Your task to perform on an android device: turn on wifi Image 0: 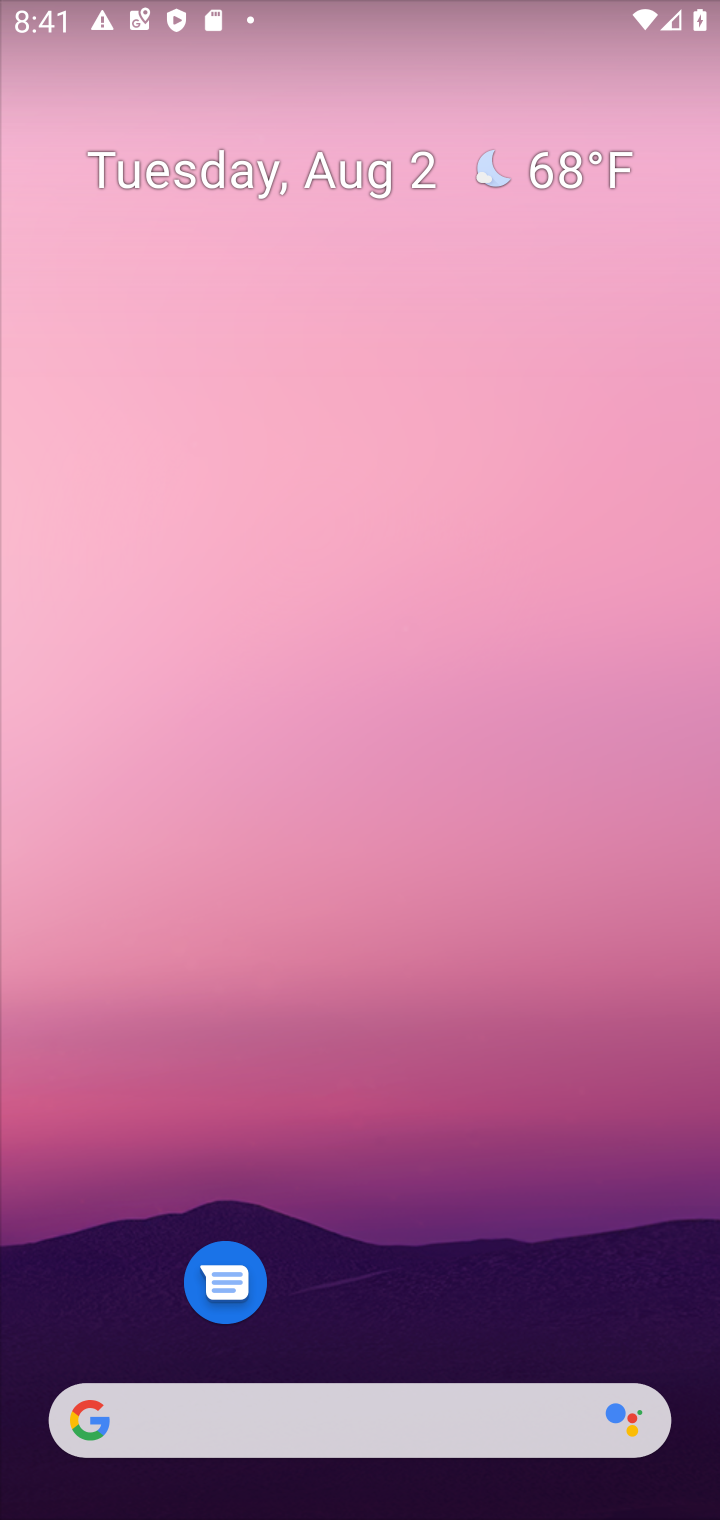
Step 0: drag from (418, 1354) to (146, 87)
Your task to perform on an android device: turn on wifi Image 1: 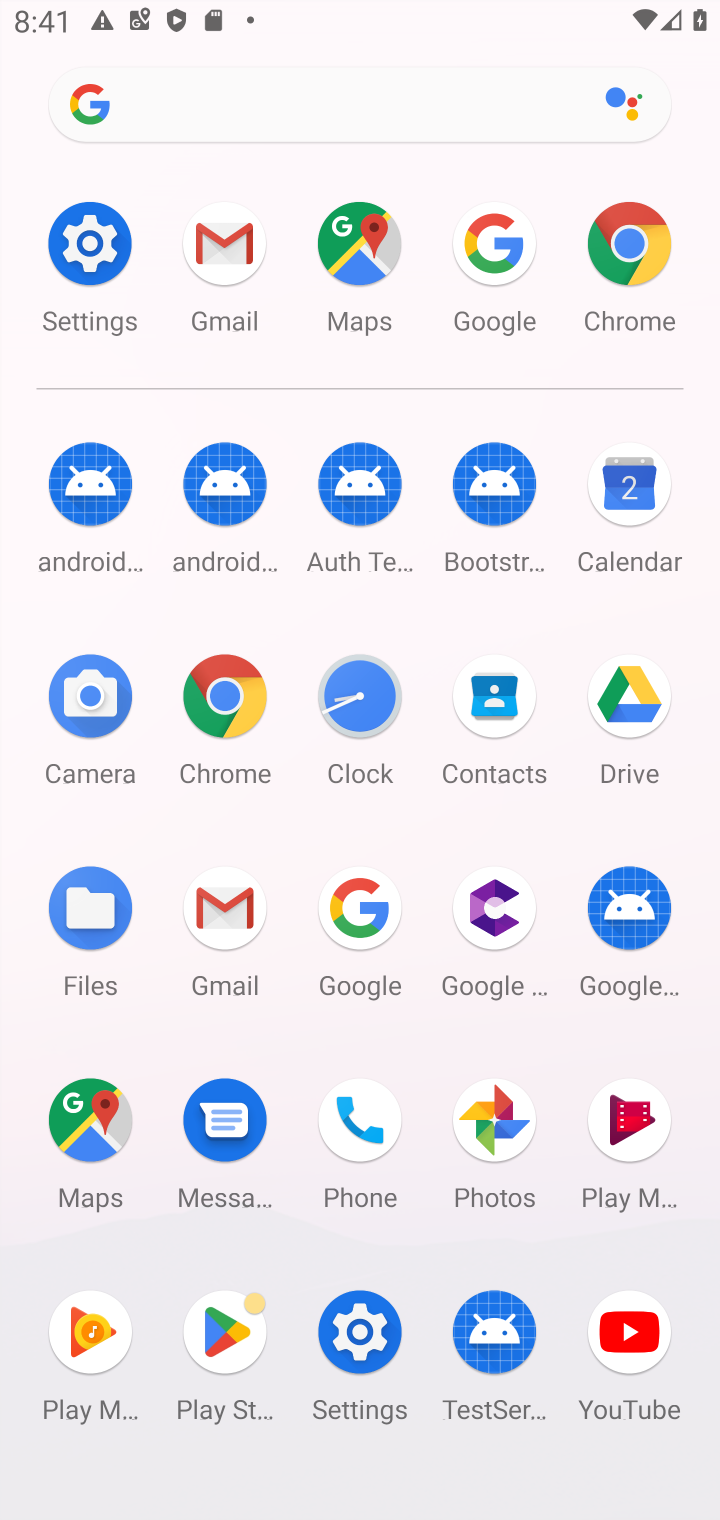
Step 1: click (59, 274)
Your task to perform on an android device: turn on wifi Image 2: 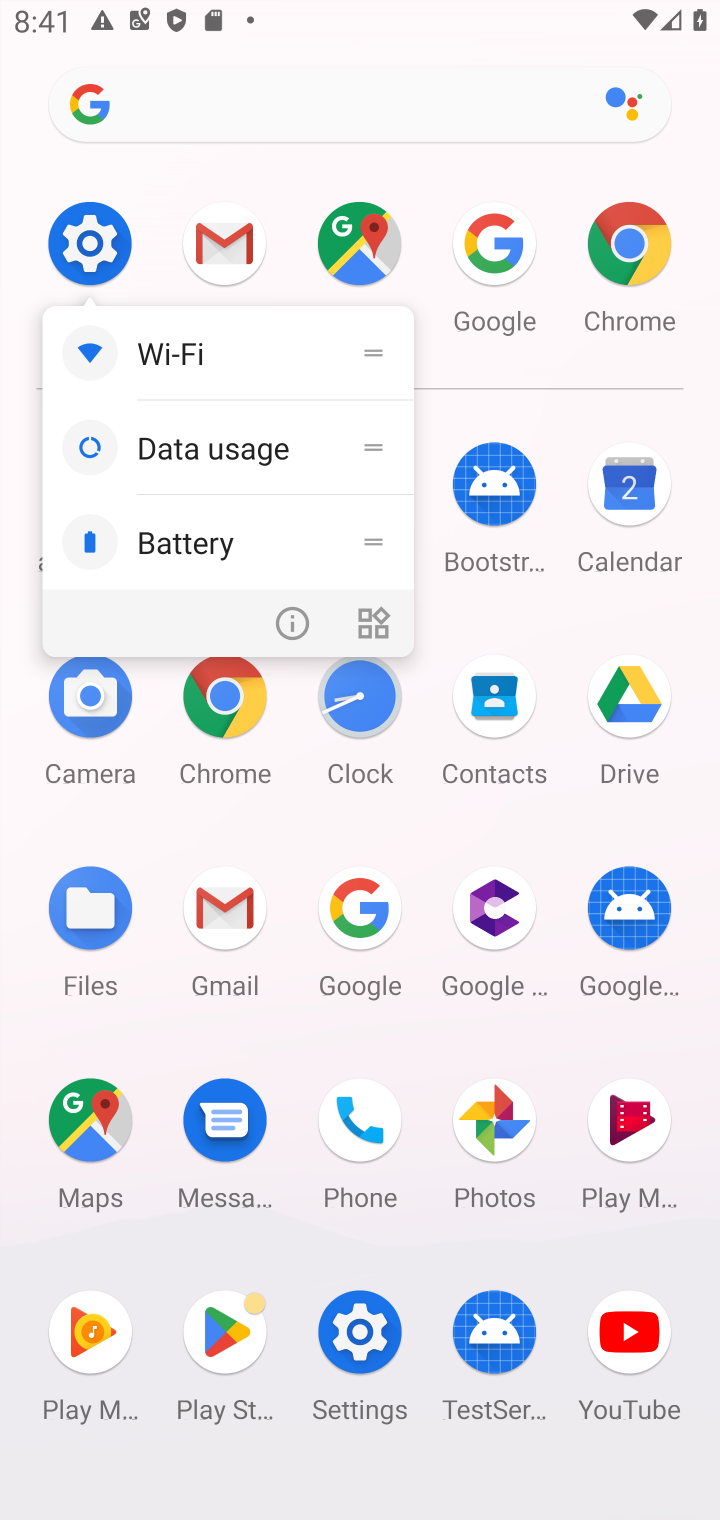
Step 2: click (83, 249)
Your task to perform on an android device: turn on wifi Image 3: 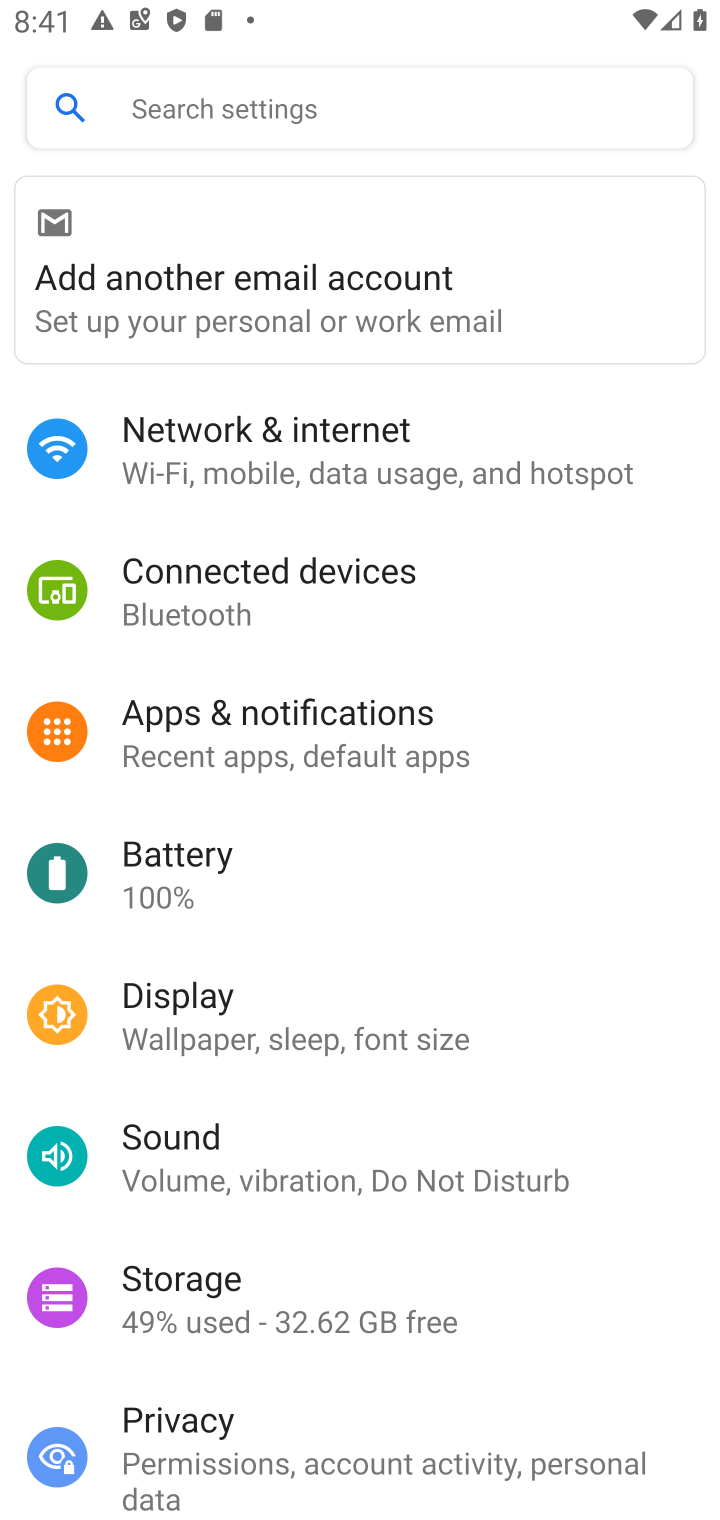
Step 3: click (332, 453)
Your task to perform on an android device: turn on wifi Image 4: 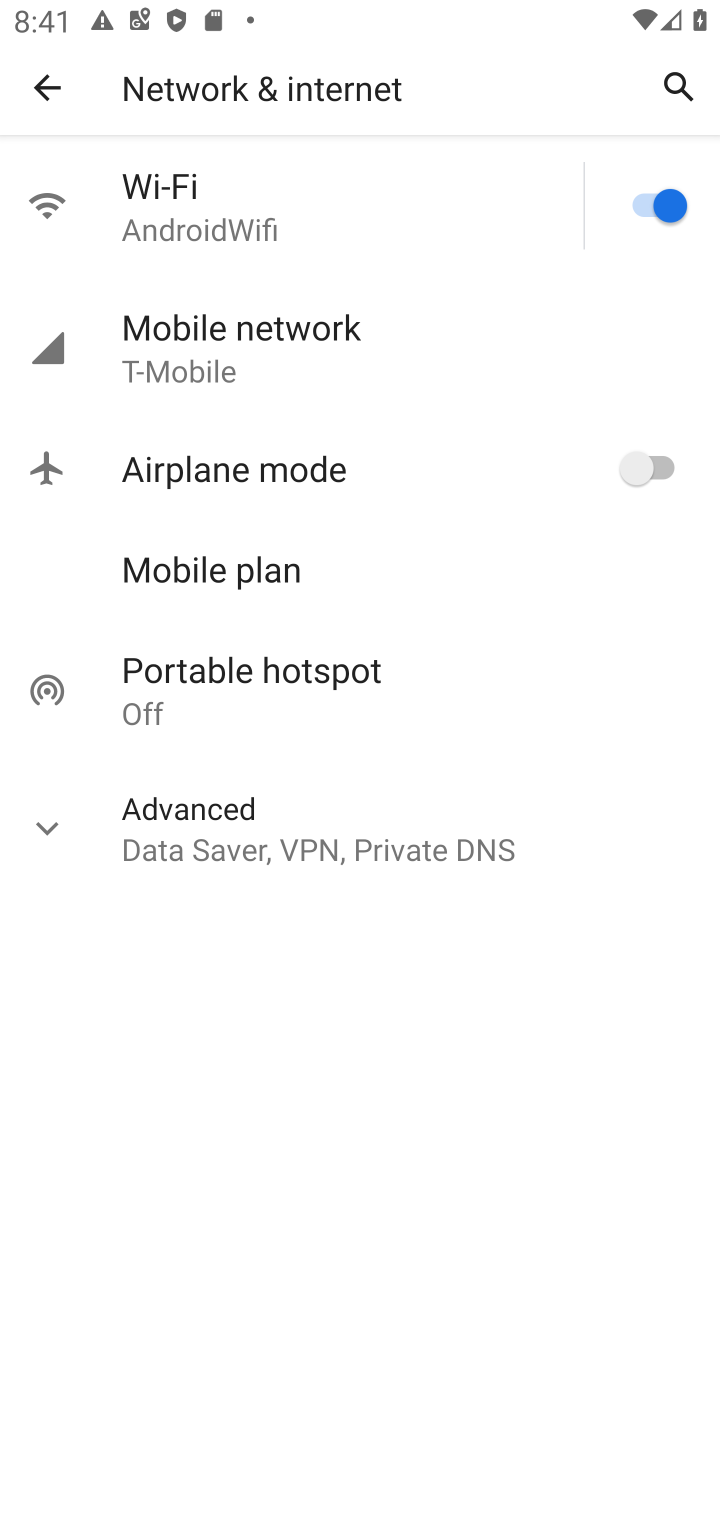
Step 4: click (239, 187)
Your task to perform on an android device: turn on wifi Image 5: 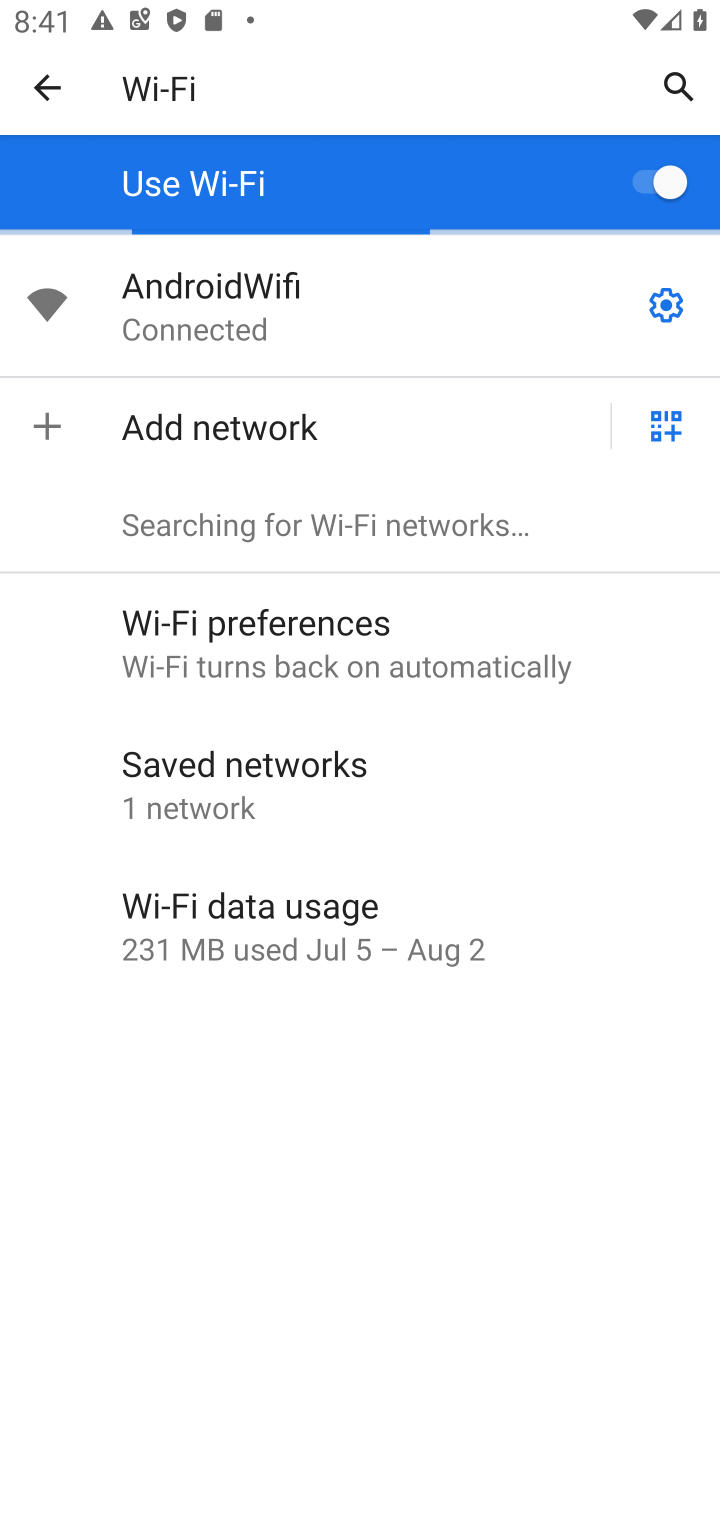
Step 5: task complete